Your task to perform on an android device: check storage Image 0: 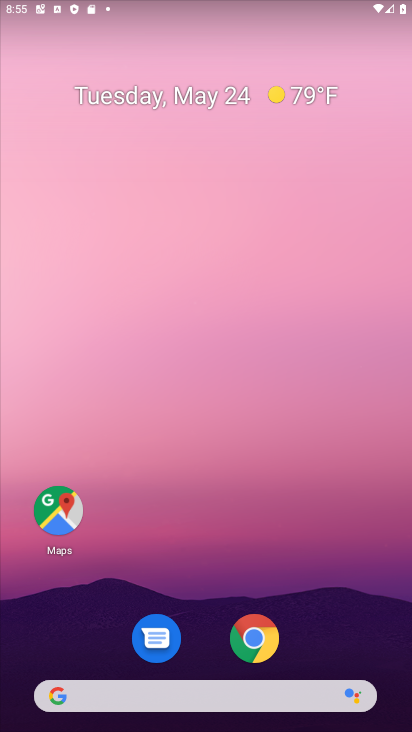
Step 0: drag from (153, 719) to (127, 3)
Your task to perform on an android device: check storage Image 1: 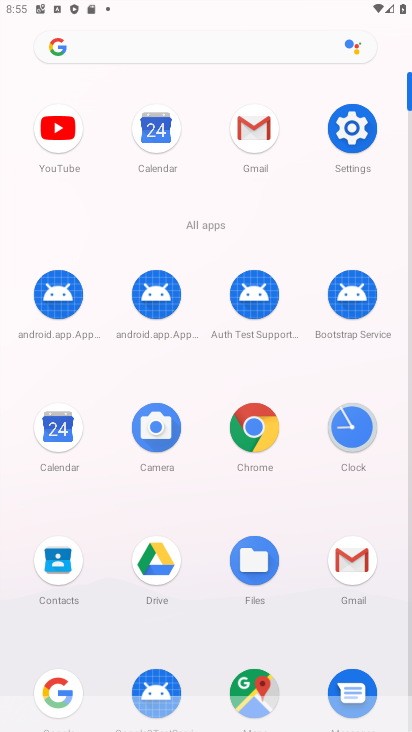
Step 1: click (351, 127)
Your task to perform on an android device: check storage Image 2: 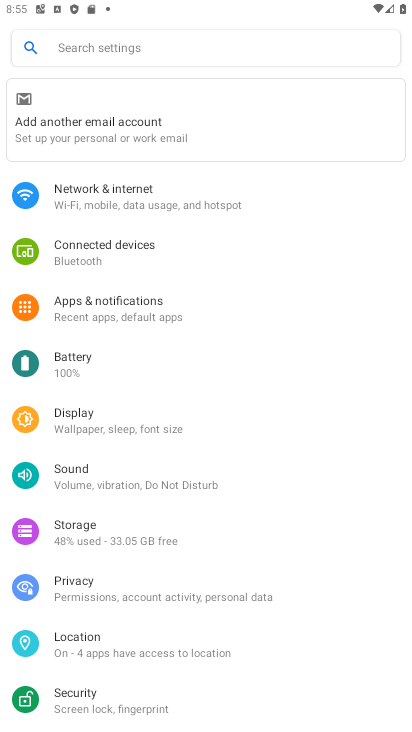
Step 2: click (113, 535)
Your task to perform on an android device: check storage Image 3: 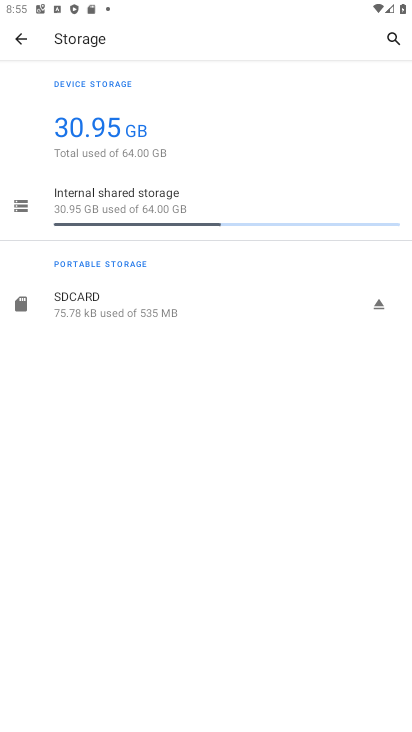
Step 3: task complete